Your task to perform on an android device: turn on bluetooth scan Image 0: 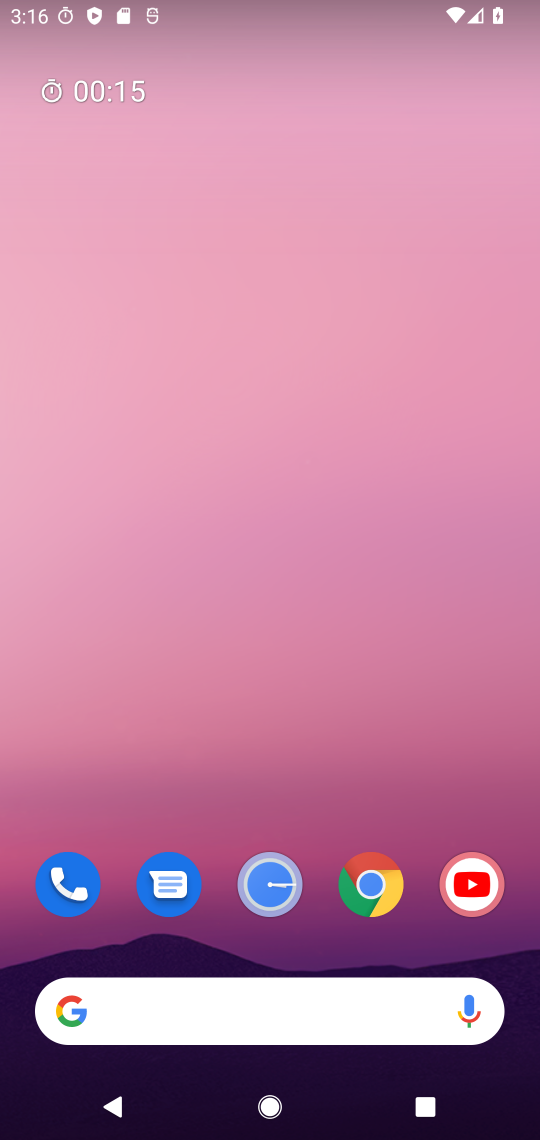
Step 0: drag from (303, 837) to (360, 301)
Your task to perform on an android device: turn on bluetooth scan Image 1: 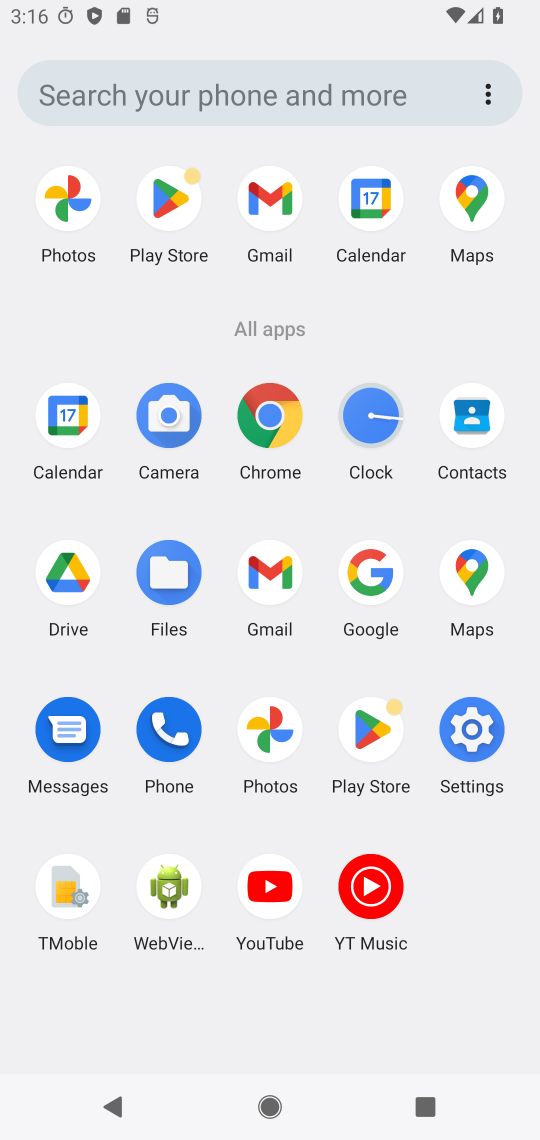
Step 1: click (489, 753)
Your task to perform on an android device: turn on bluetooth scan Image 2: 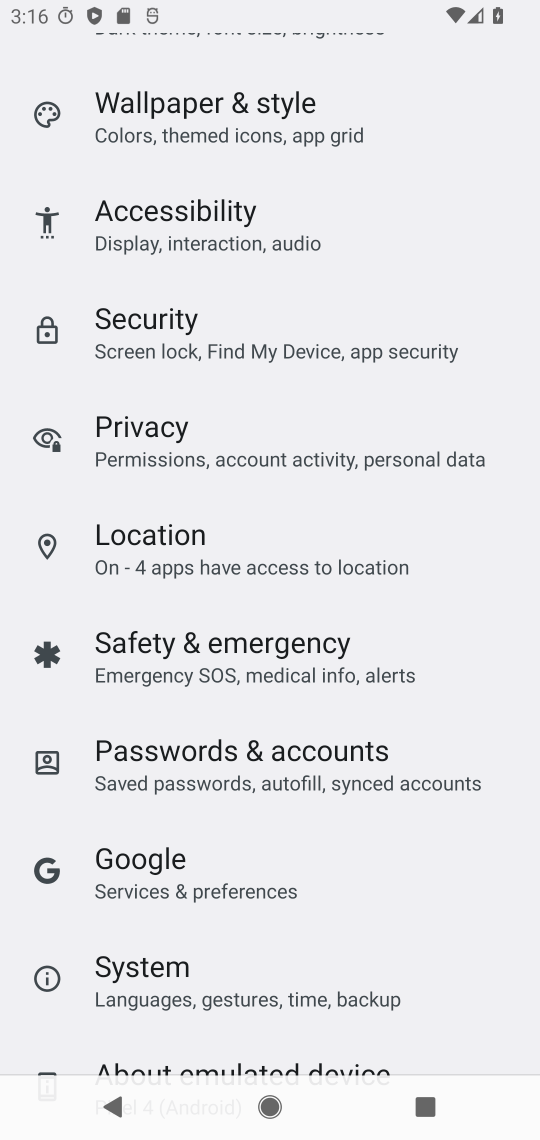
Step 2: click (272, 554)
Your task to perform on an android device: turn on bluetooth scan Image 3: 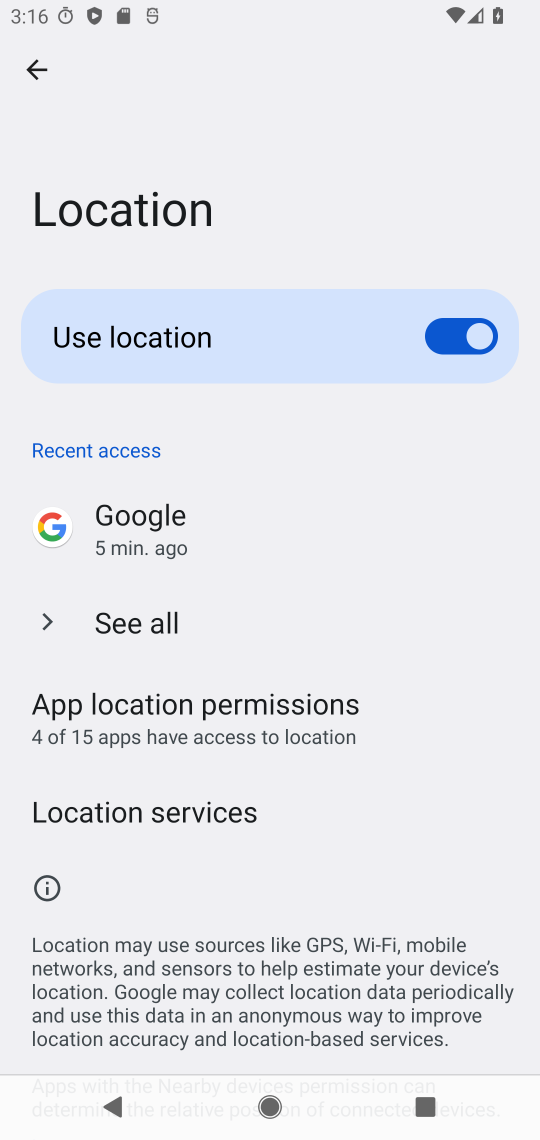
Step 3: click (244, 813)
Your task to perform on an android device: turn on bluetooth scan Image 4: 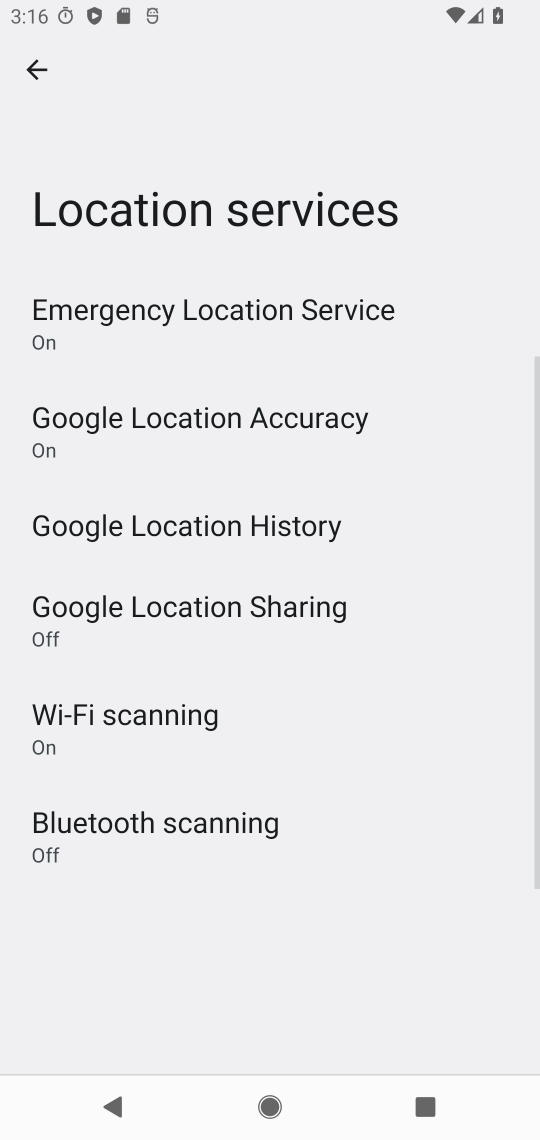
Step 4: click (247, 830)
Your task to perform on an android device: turn on bluetooth scan Image 5: 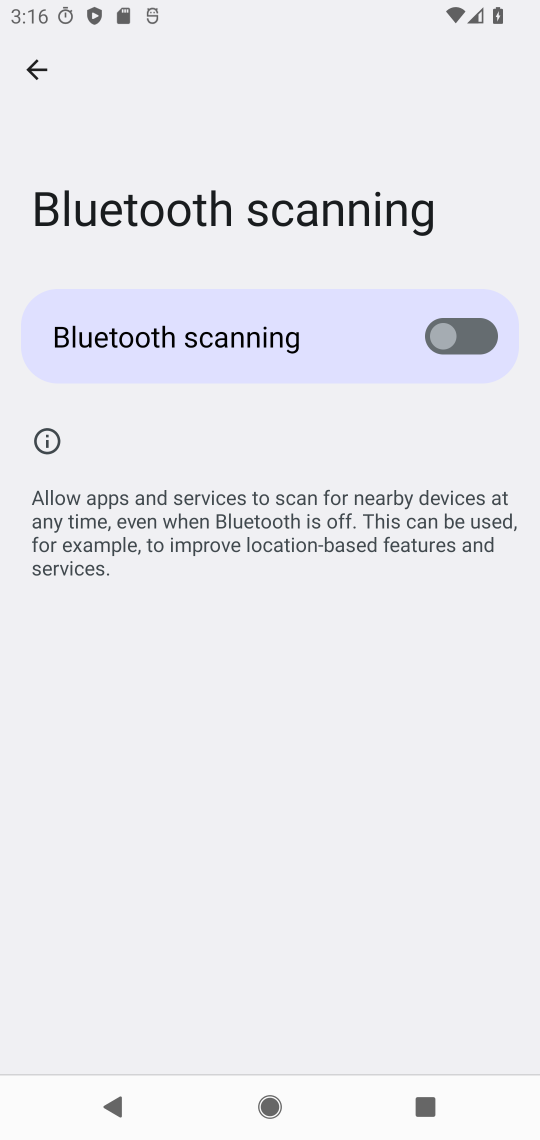
Step 5: click (459, 330)
Your task to perform on an android device: turn on bluetooth scan Image 6: 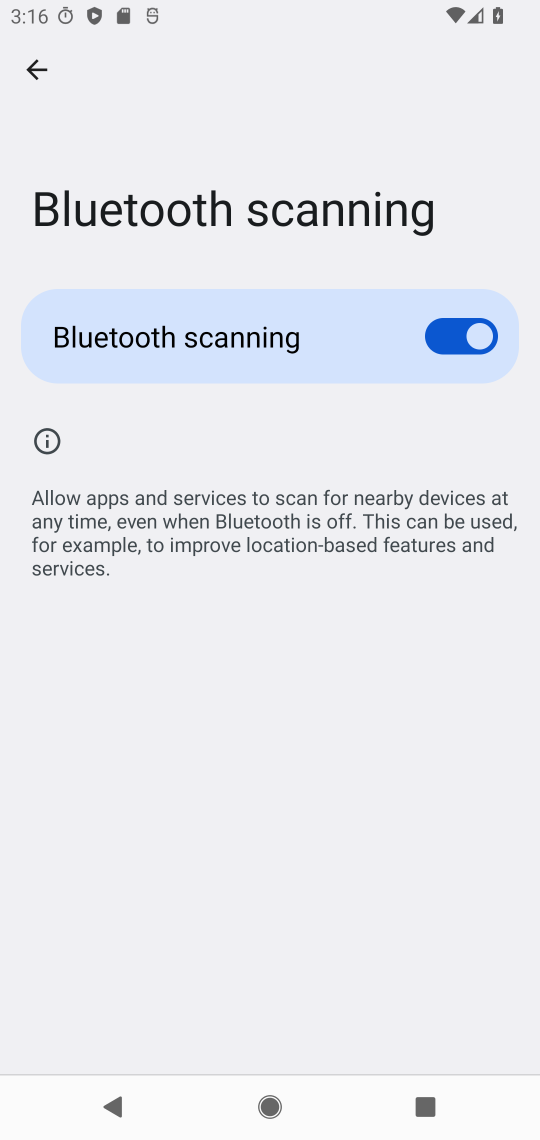
Step 6: task complete